Your task to perform on an android device: turn on showing notifications on the lock screen Image 0: 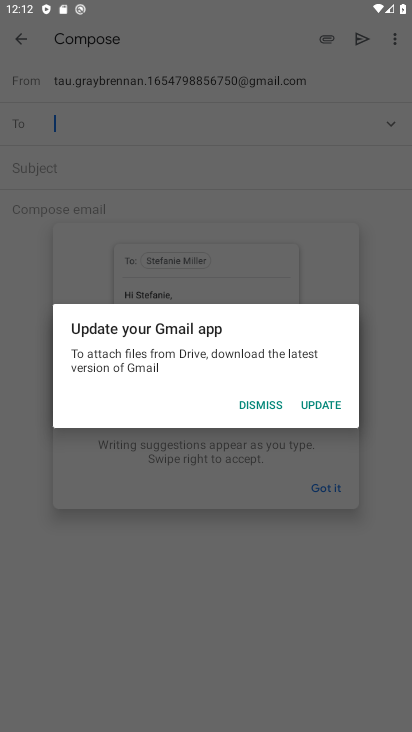
Step 0: press home button
Your task to perform on an android device: turn on showing notifications on the lock screen Image 1: 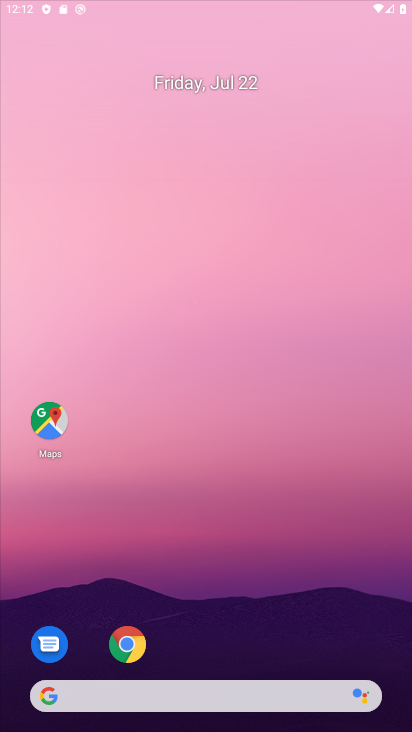
Step 1: drag from (205, 494) to (242, 147)
Your task to perform on an android device: turn on showing notifications on the lock screen Image 2: 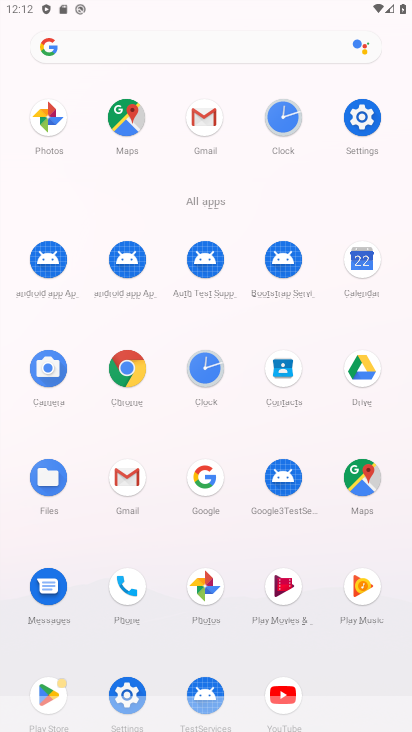
Step 2: click (360, 114)
Your task to perform on an android device: turn on showing notifications on the lock screen Image 3: 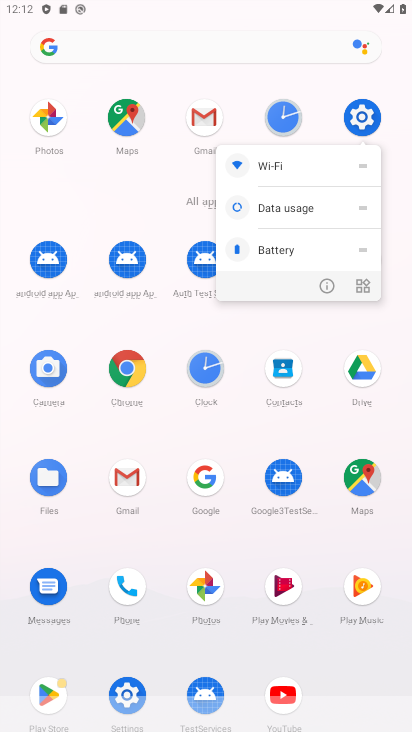
Step 3: click (331, 290)
Your task to perform on an android device: turn on showing notifications on the lock screen Image 4: 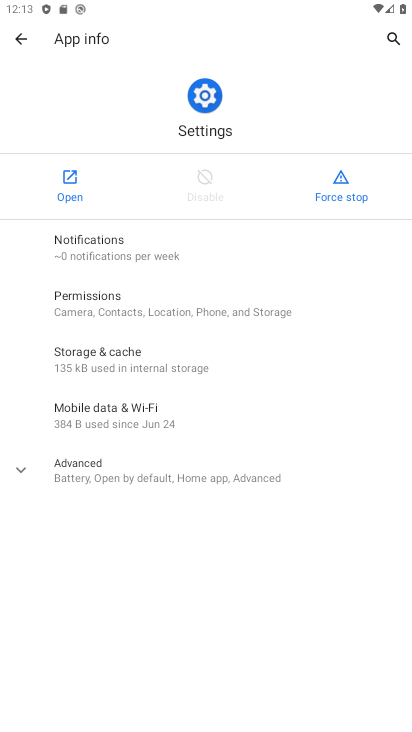
Step 4: click (37, 187)
Your task to perform on an android device: turn on showing notifications on the lock screen Image 5: 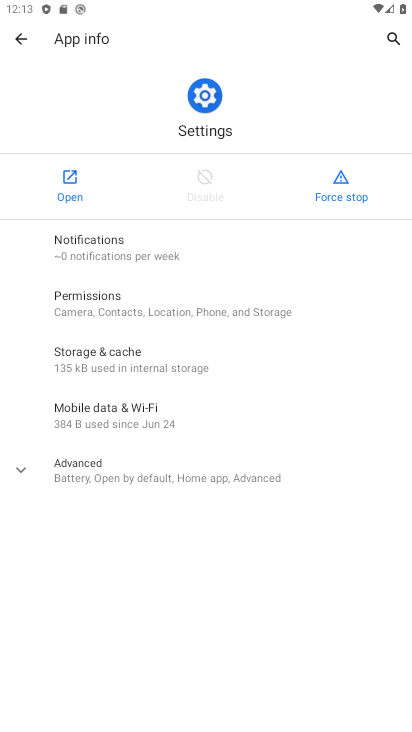
Step 5: click (67, 196)
Your task to perform on an android device: turn on showing notifications on the lock screen Image 6: 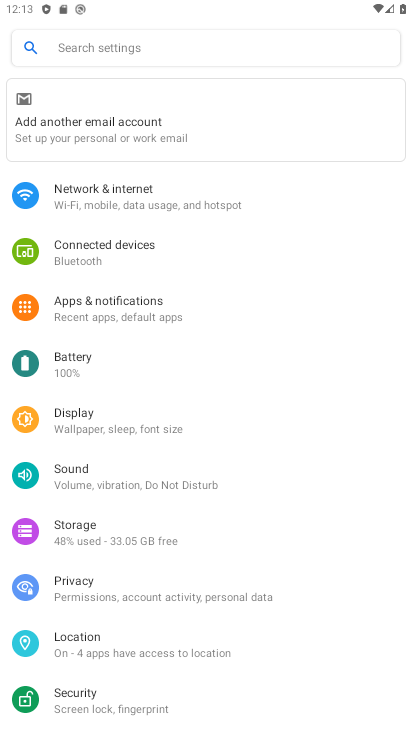
Step 6: click (125, 303)
Your task to perform on an android device: turn on showing notifications on the lock screen Image 7: 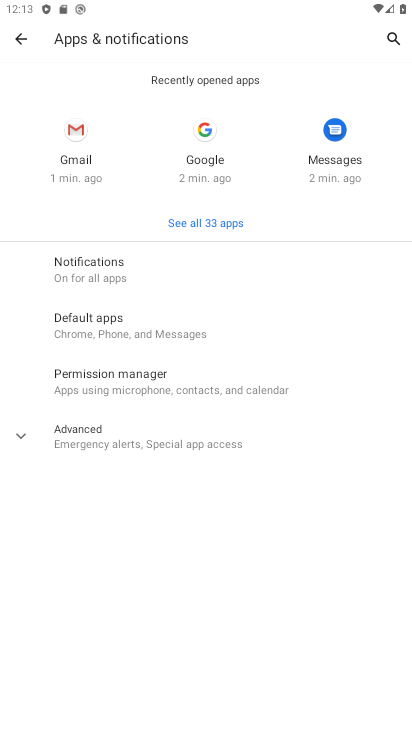
Step 7: click (120, 280)
Your task to perform on an android device: turn on showing notifications on the lock screen Image 8: 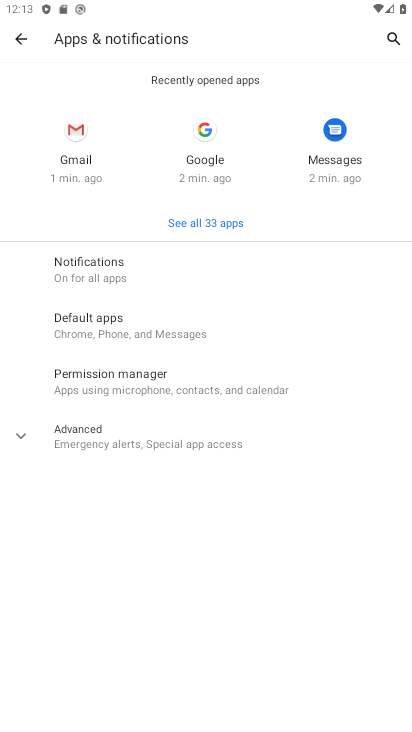
Step 8: click (120, 280)
Your task to perform on an android device: turn on showing notifications on the lock screen Image 9: 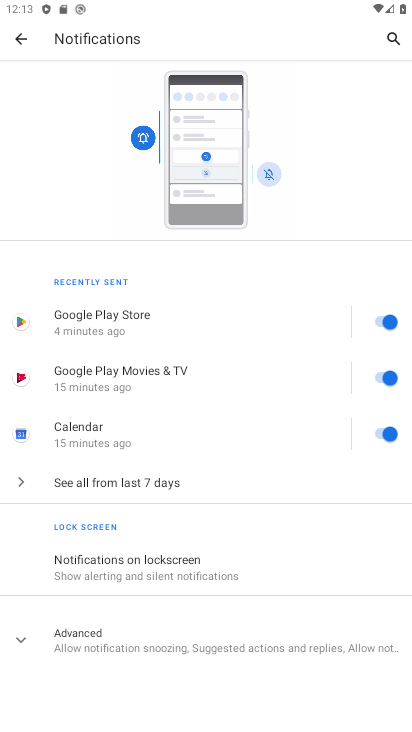
Step 9: drag from (235, 605) to (333, 185)
Your task to perform on an android device: turn on showing notifications on the lock screen Image 10: 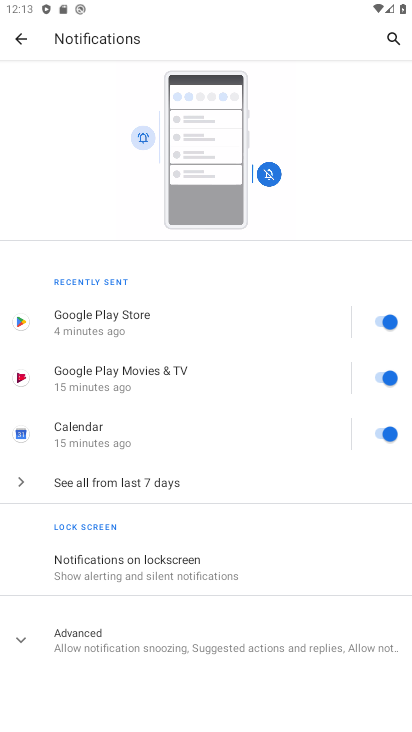
Step 10: click (86, 637)
Your task to perform on an android device: turn on showing notifications on the lock screen Image 11: 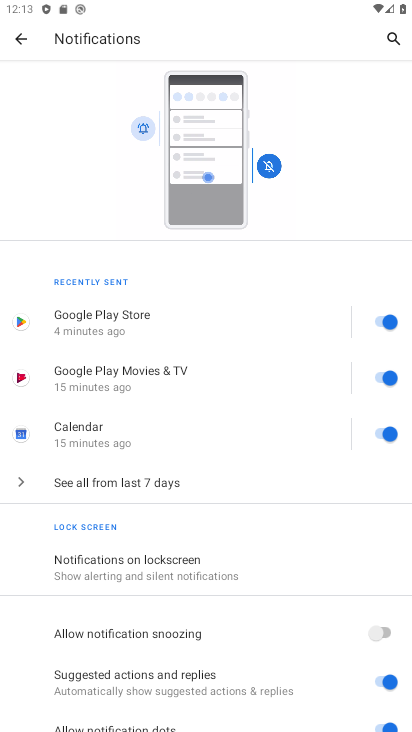
Step 11: drag from (203, 588) to (278, 319)
Your task to perform on an android device: turn on showing notifications on the lock screen Image 12: 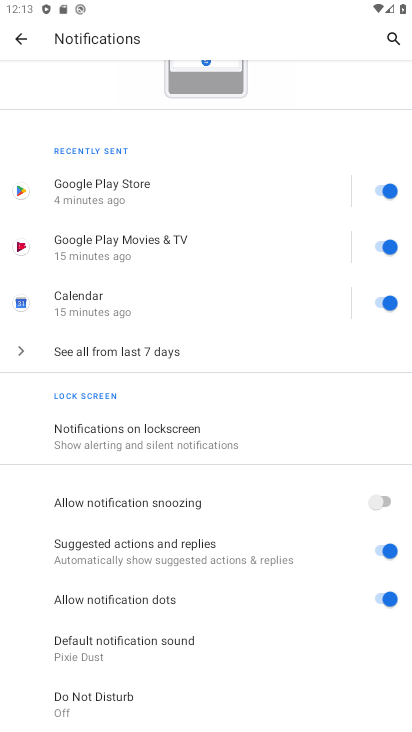
Step 12: click (185, 432)
Your task to perform on an android device: turn on showing notifications on the lock screen Image 13: 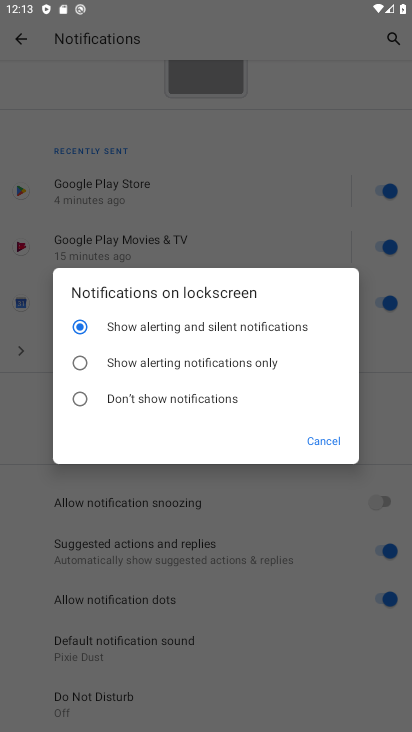
Step 13: drag from (195, 597) to (316, 282)
Your task to perform on an android device: turn on showing notifications on the lock screen Image 14: 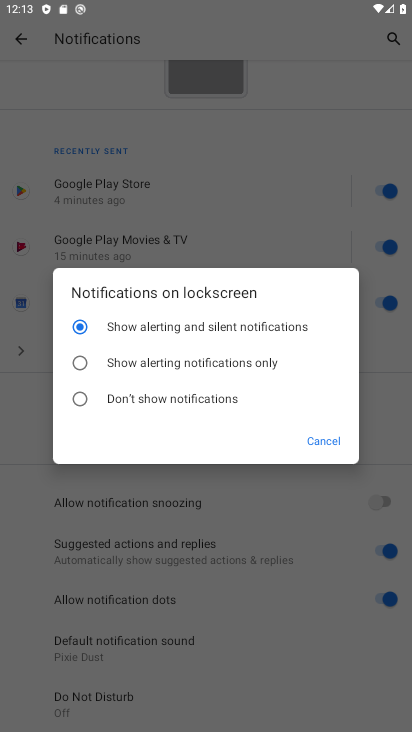
Step 14: click (132, 361)
Your task to perform on an android device: turn on showing notifications on the lock screen Image 15: 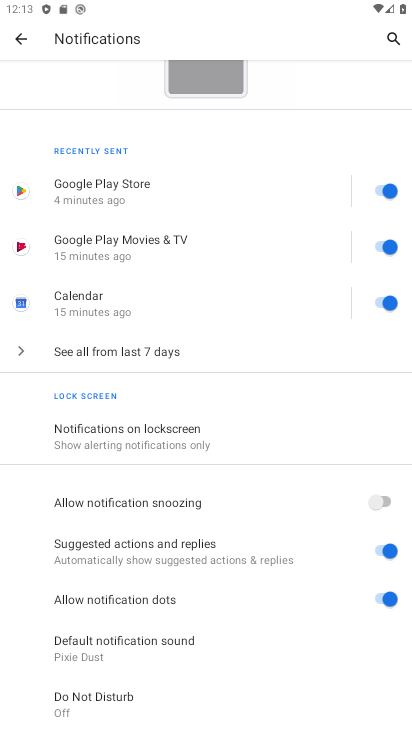
Step 15: task complete